Your task to perform on an android device: See recent photos Image 0: 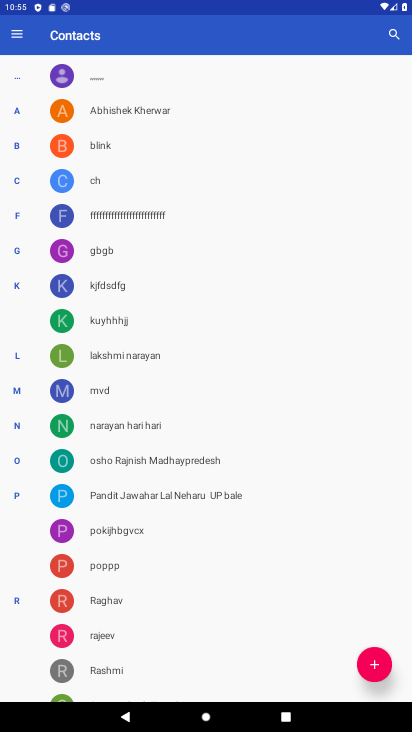
Step 0: drag from (193, 214) to (210, 402)
Your task to perform on an android device: See recent photos Image 1: 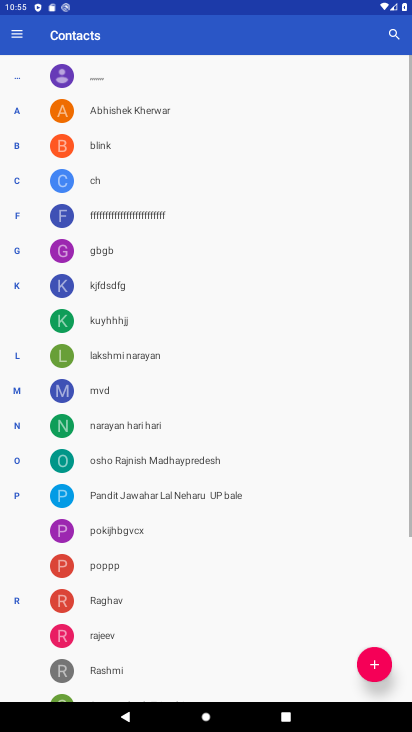
Step 1: press home button
Your task to perform on an android device: See recent photos Image 2: 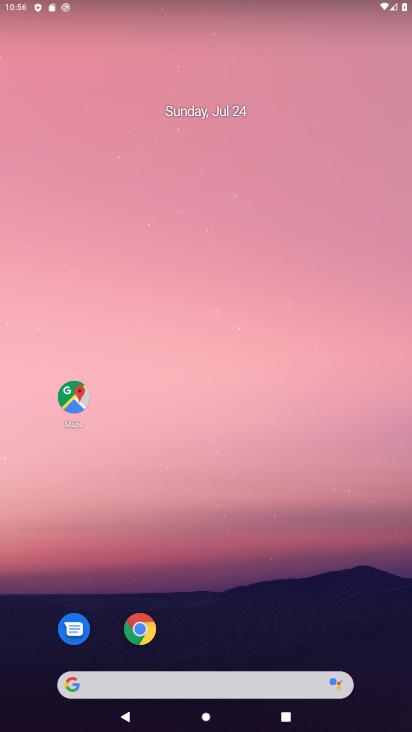
Step 2: drag from (217, 547) to (210, 274)
Your task to perform on an android device: See recent photos Image 3: 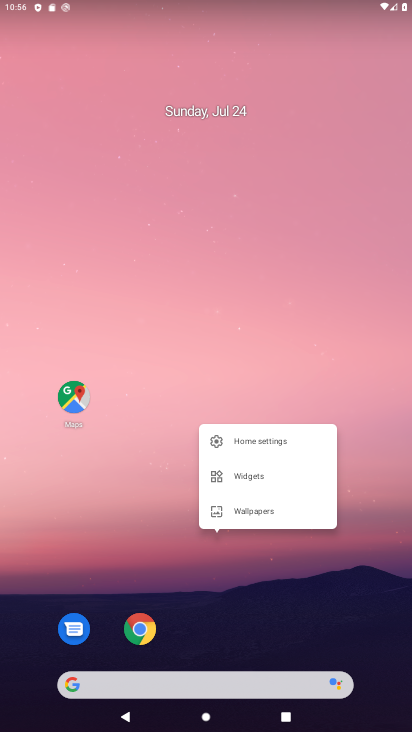
Step 3: drag from (235, 574) to (230, 21)
Your task to perform on an android device: See recent photos Image 4: 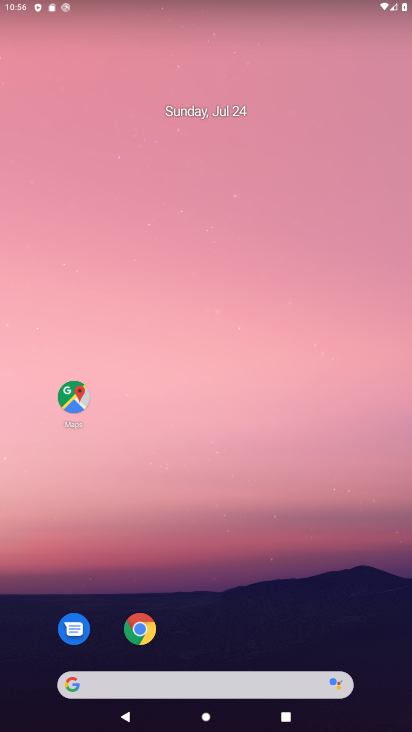
Step 4: drag from (192, 595) to (150, 275)
Your task to perform on an android device: See recent photos Image 5: 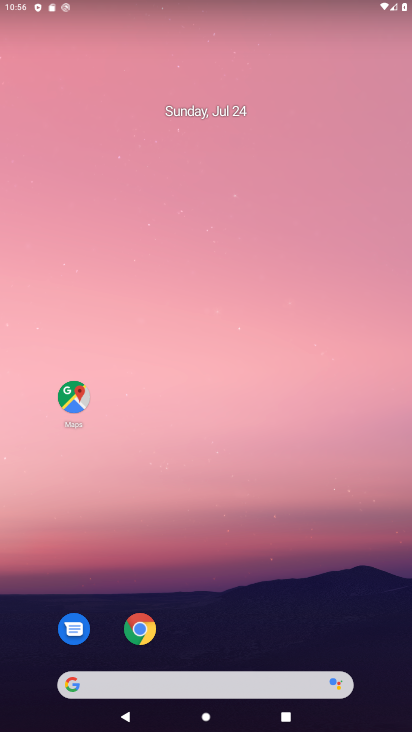
Step 5: drag from (284, 611) to (312, 121)
Your task to perform on an android device: See recent photos Image 6: 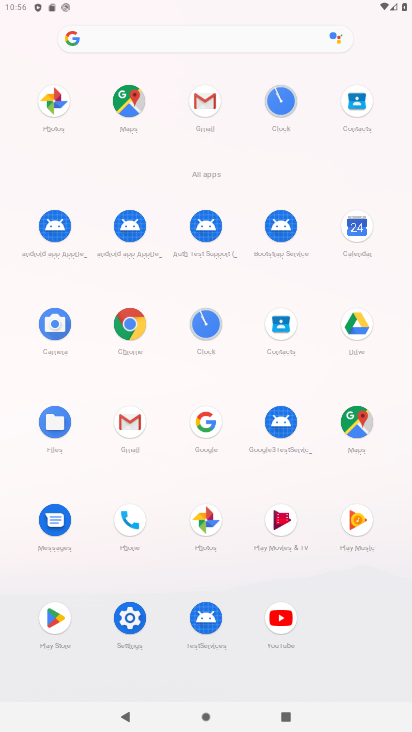
Step 6: click (58, 89)
Your task to perform on an android device: See recent photos Image 7: 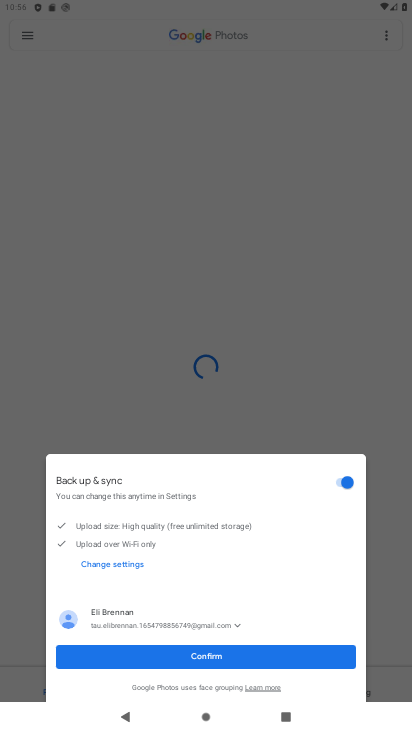
Step 7: click (161, 663)
Your task to perform on an android device: See recent photos Image 8: 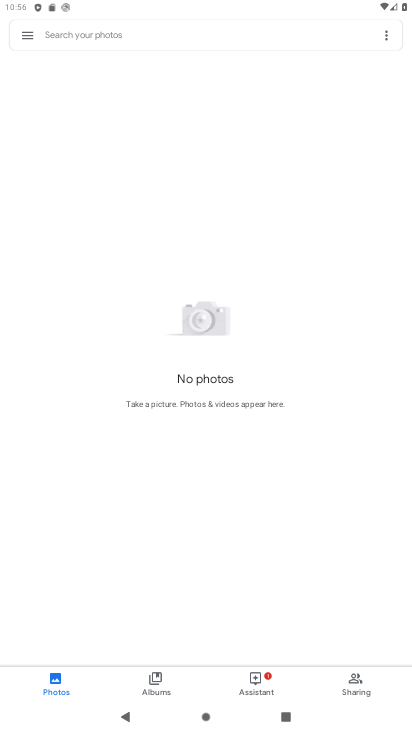
Step 8: task complete